Your task to perform on an android device: toggle sleep mode Image 0: 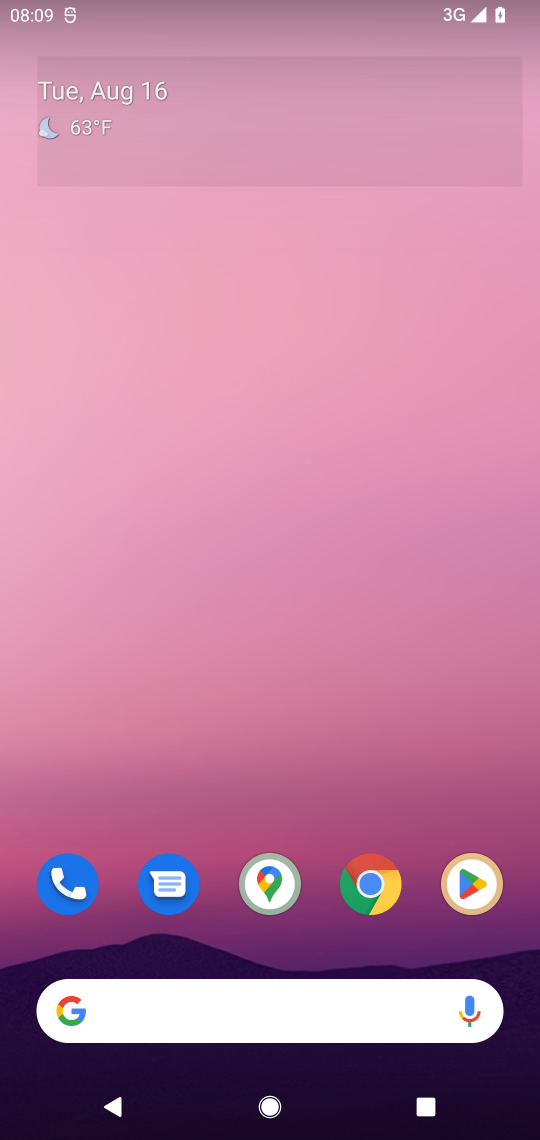
Step 0: press home button
Your task to perform on an android device: toggle sleep mode Image 1: 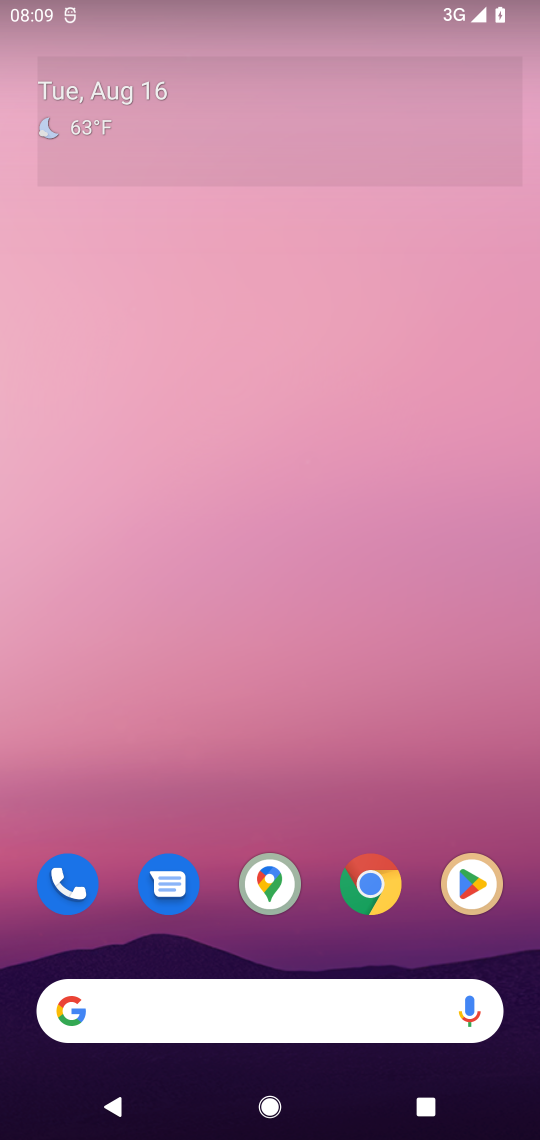
Step 1: drag from (350, 560) to (333, 71)
Your task to perform on an android device: toggle sleep mode Image 2: 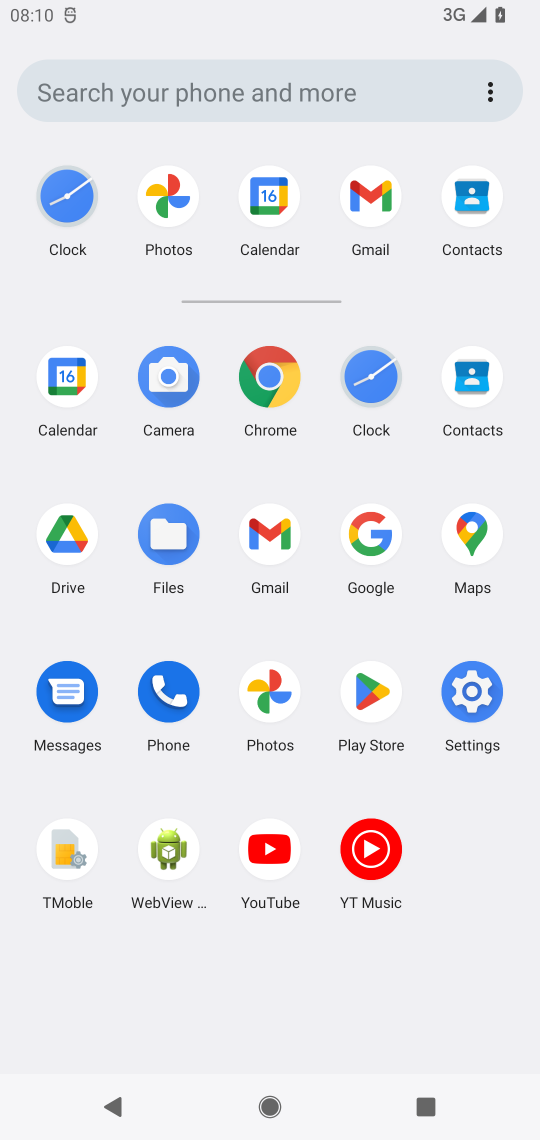
Step 2: click (461, 683)
Your task to perform on an android device: toggle sleep mode Image 3: 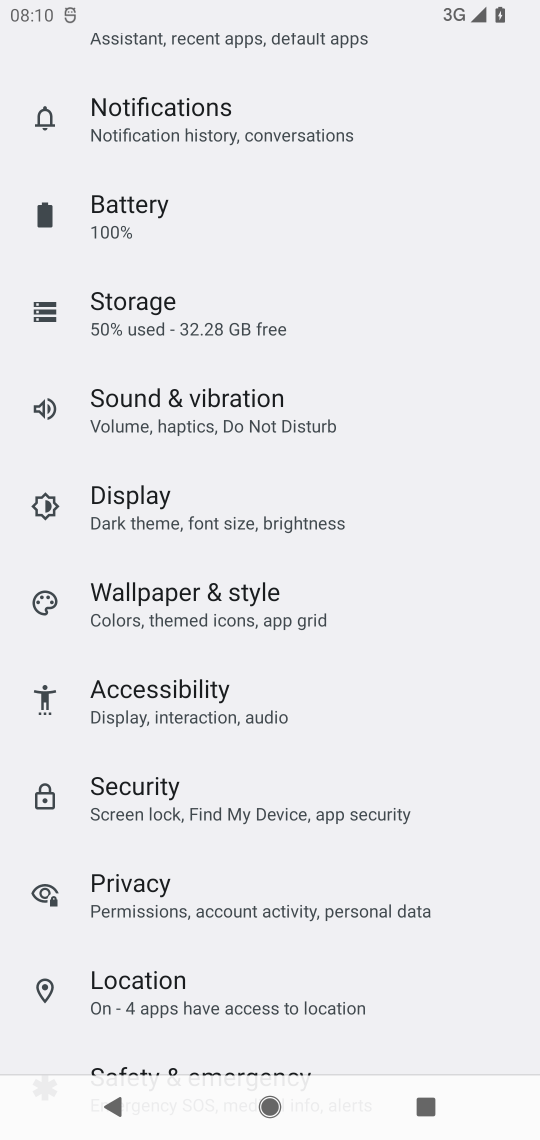
Step 3: click (133, 489)
Your task to perform on an android device: toggle sleep mode Image 4: 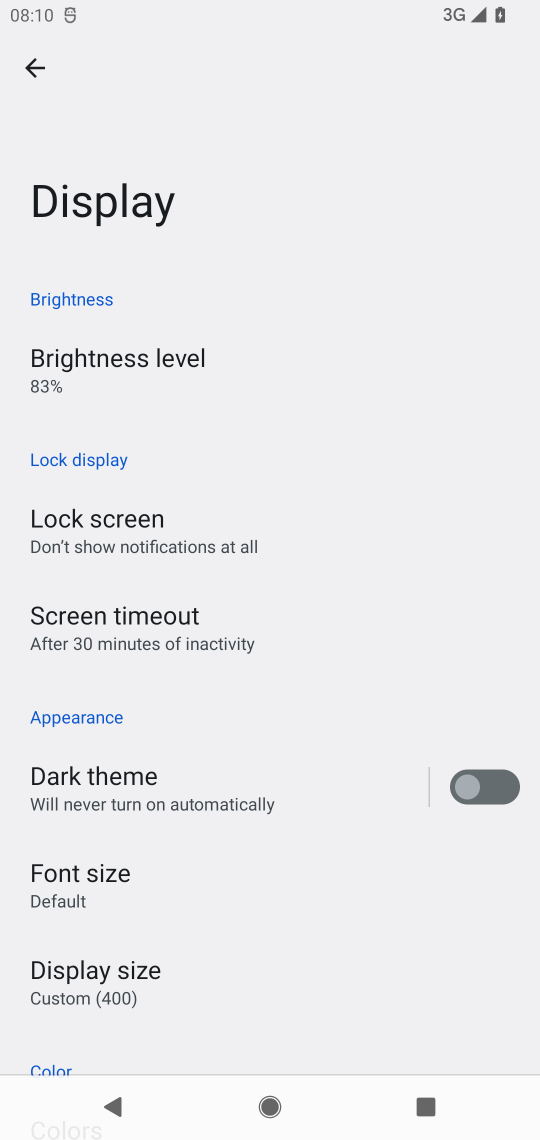
Step 4: task complete